Your task to perform on an android device: find photos in the google photos app Image 0: 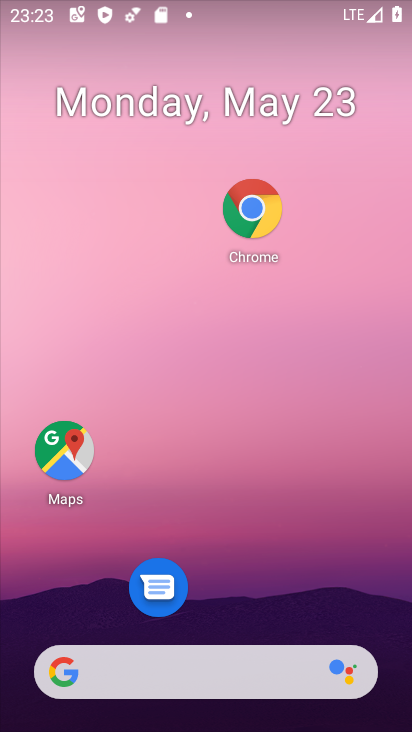
Step 0: drag from (276, 682) to (294, 167)
Your task to perform on an android device: find photos in the google photos app Image 1: 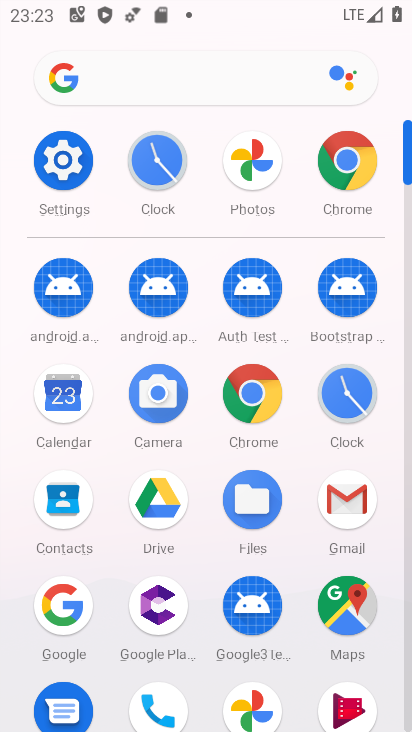
Step 1: drag from (264, 607) to (261, 206)
Your task to perform on an android device: find photos in the google photos app Image 2: 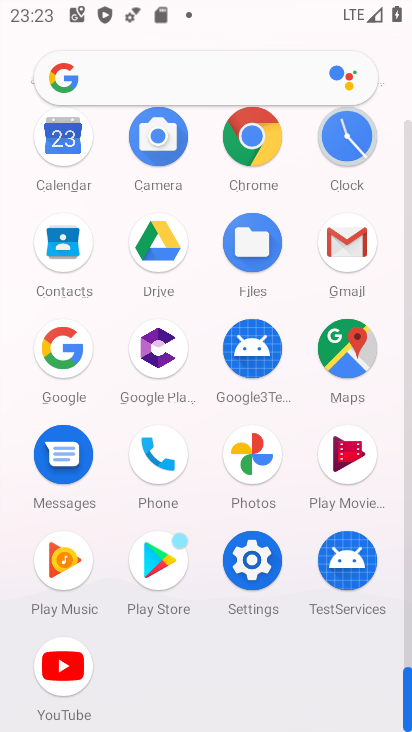
Step 2: click (252, 455)
Your task to perform on an android device: find photos in the google photos app Image 3: 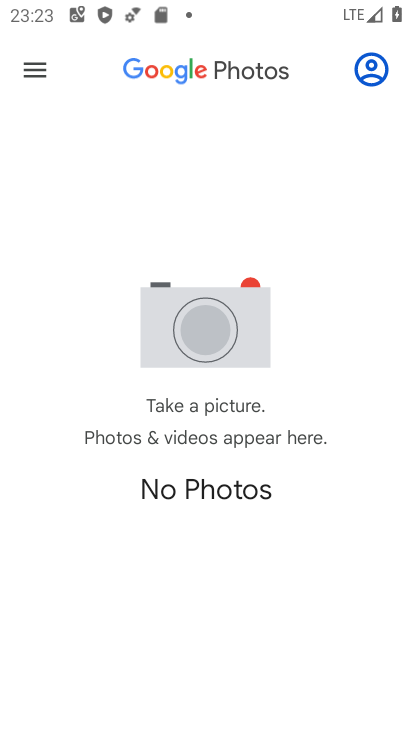
Step 3: press back button
Your task to perform on an android device: find photos in the google photos app Image 4: 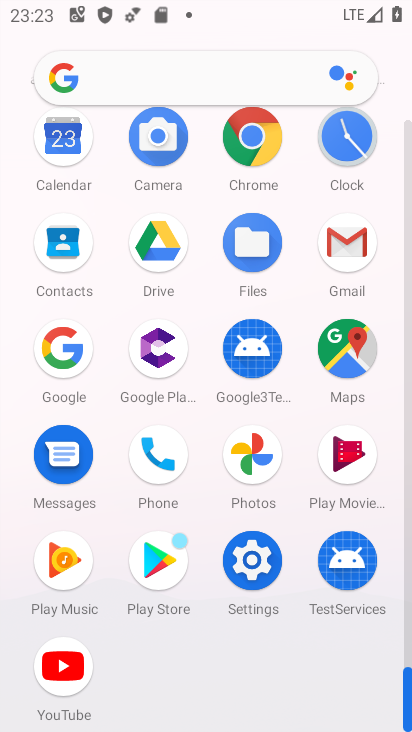
Step 4: click (255, 453)
Your task to perform on an android device: find photos in the google photos app Image 5: 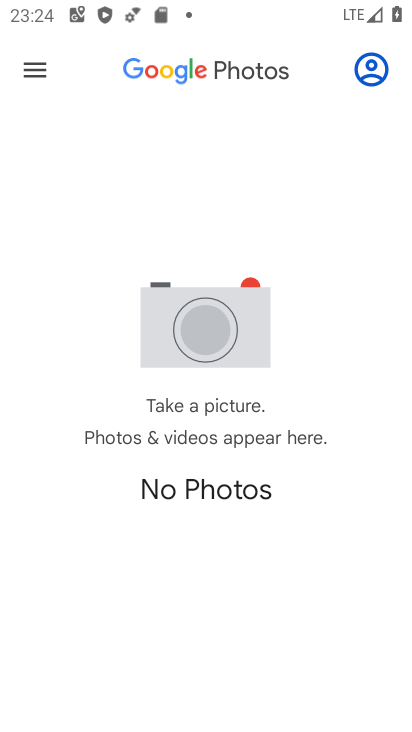
Step 5: task complete